Your task to perform on an android device: delete a single message in the gmail app Image 0: 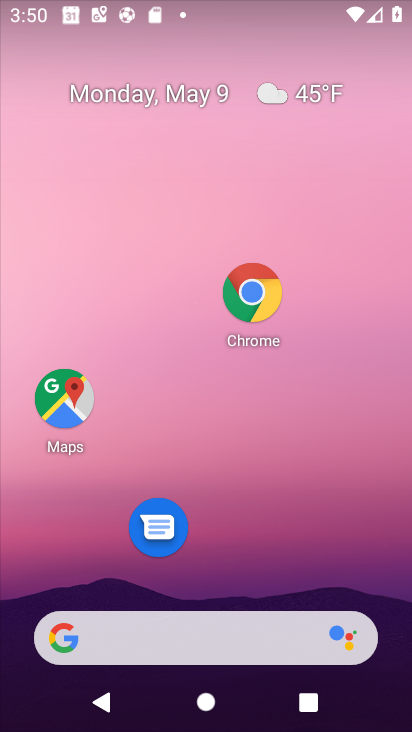
Step 0: drag from (283, 471) to (251, 140)
Your task to perform on an android device: delete a single message in the gmail app Image 1: 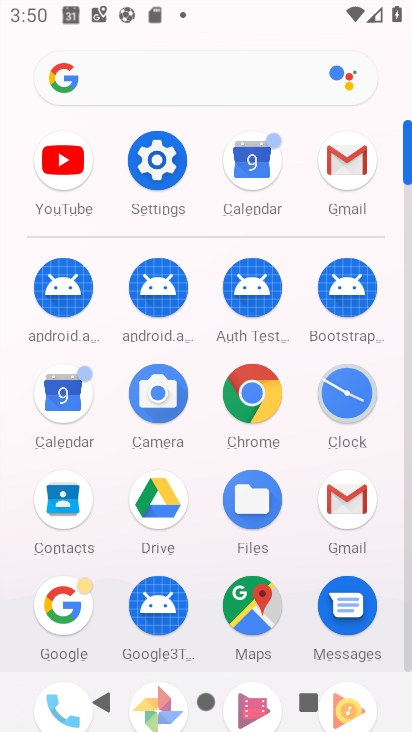
Step 1: click (360, 155)
Your task to perform on an android device: delete a single message in the gmail app Image 2: 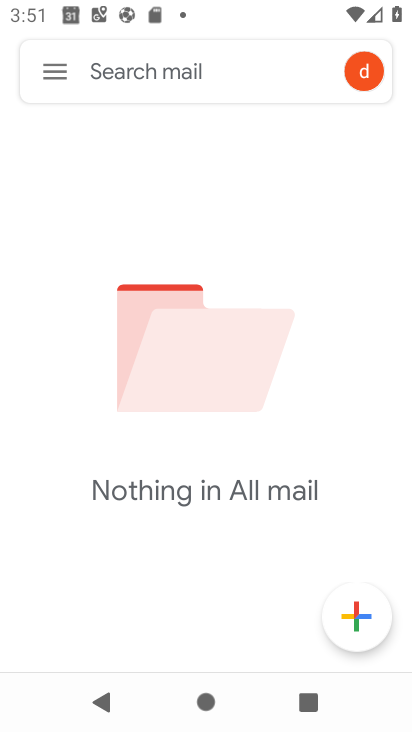
Step 2: task complete